Your task to perform on an android device: See recent photos Image 0: 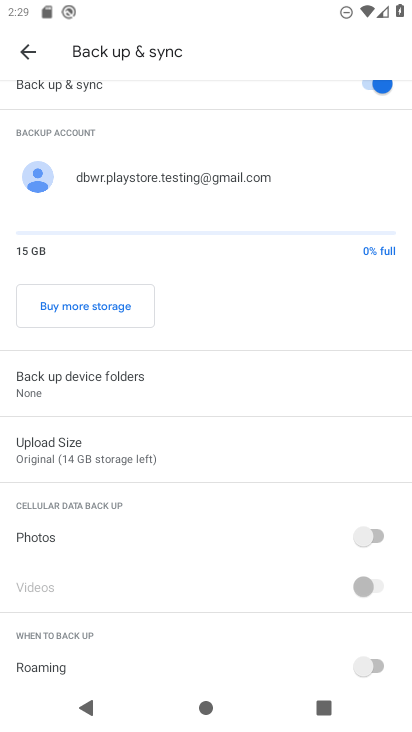
Step 0: press back button
Your task to perform on an android device: See recent photos Image 1: 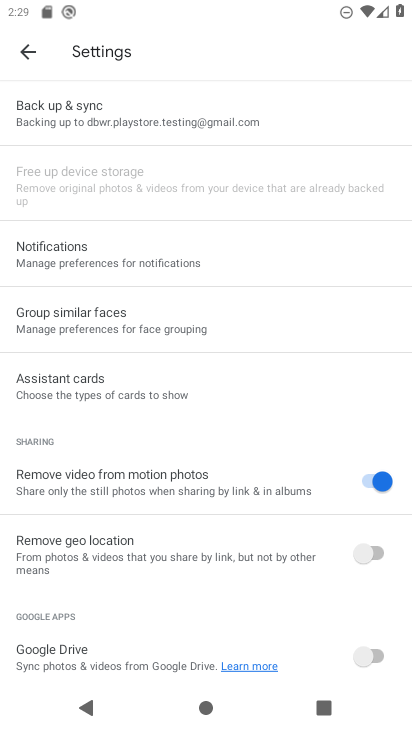
Step 1: click (31, 66)
Your task to perform on an android device: See recent photos Image 2: 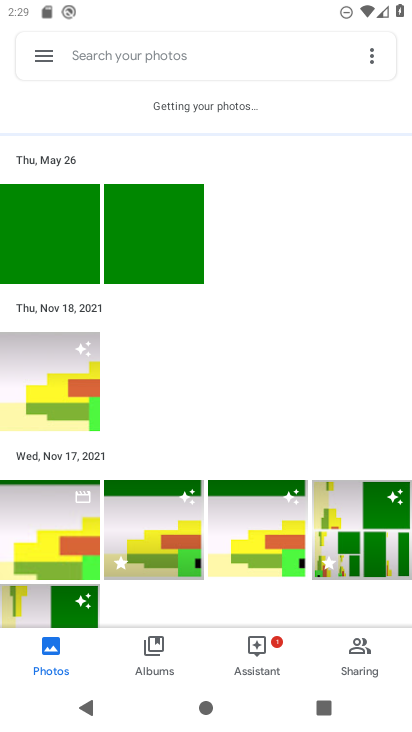
Step 2: task complete